Your task to perform on an android device: turn on location history Image 0: 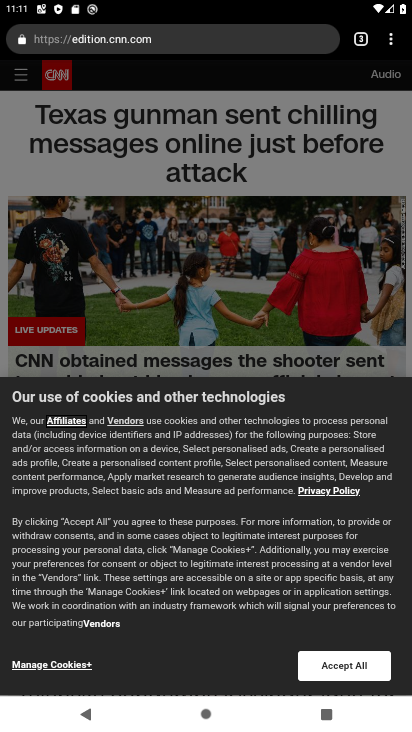
Step 0: press home button
Your task to perform on an android device: turn on location history Image 1: 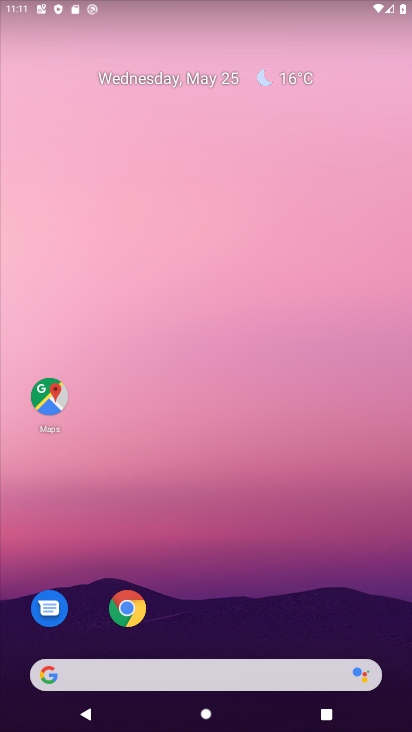
Step 1: drag from (194, 586) to (256, 126)
Your task to perform on an android device: turn on location history Image 2: 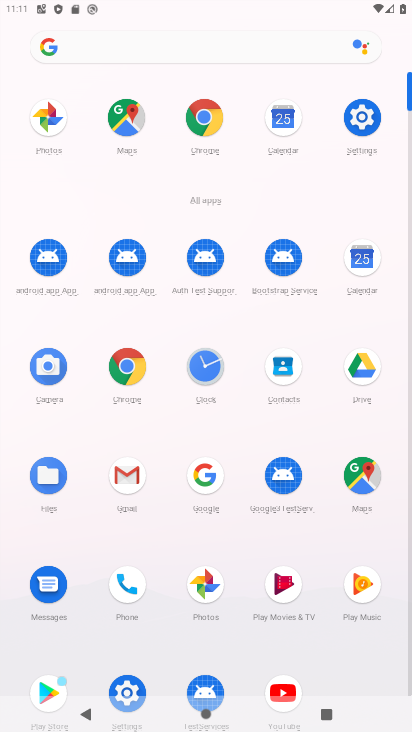
Step 2: click (360, 117)
Your task to perform on an android device: turn on location history Image 3: 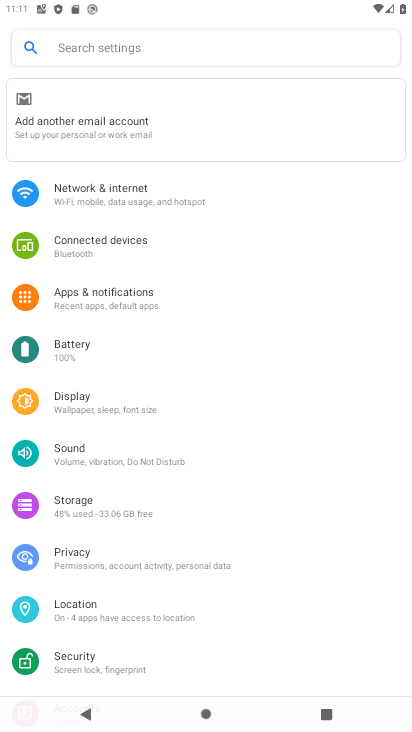
Step 3: click (70, 602)
Your task to perform on an android device: turn on location history Image 4: 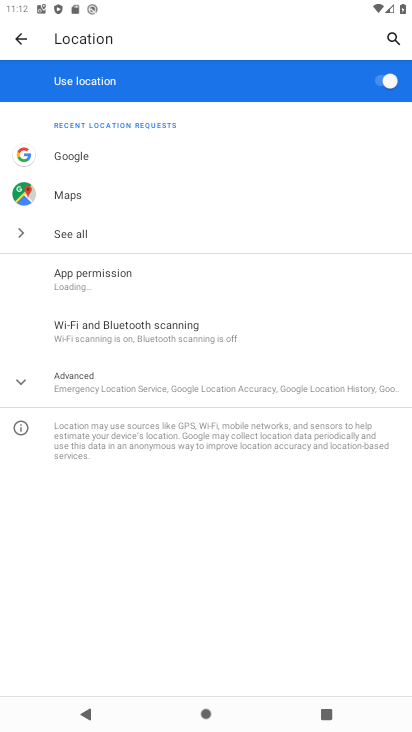
Step 4: click (132, 387)
Your task to perform on an android device: turn on location history Image 5: 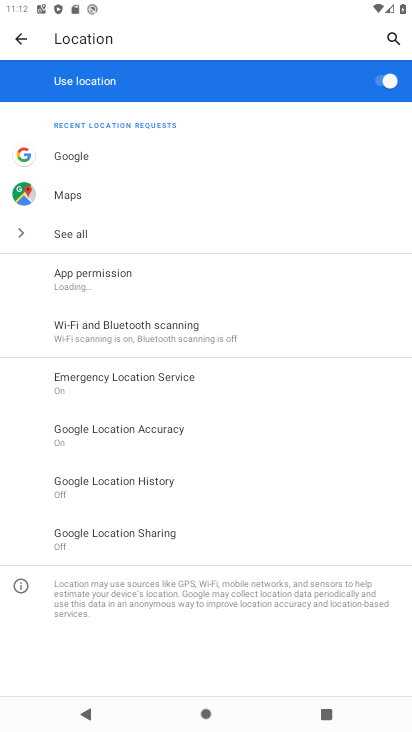
Step 5: click (109, 492)
Your task to perform on an android device: turn on location history Image 6: 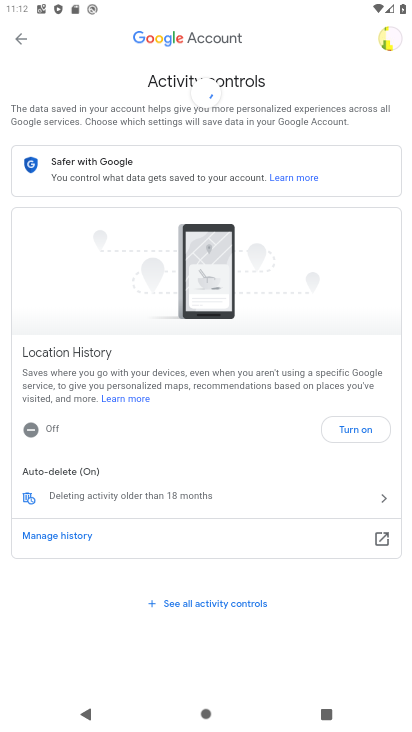
Step 6: click (355, 437)
Your task to perform on an android device: turn on location history Image 7: 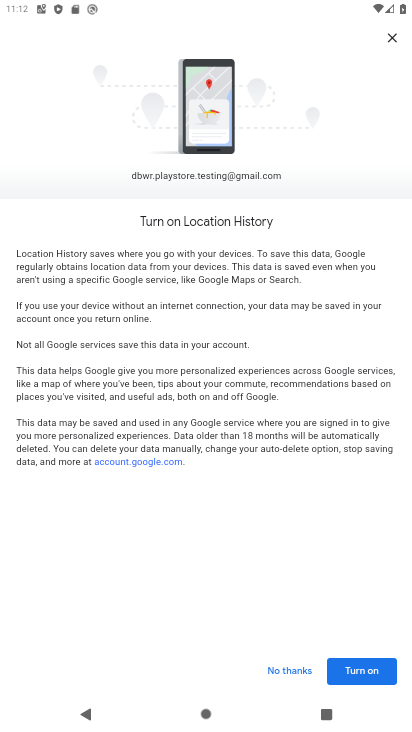
Step 7: click (370, 681)
Your task to perform on an android device: turn on location history Image 8: 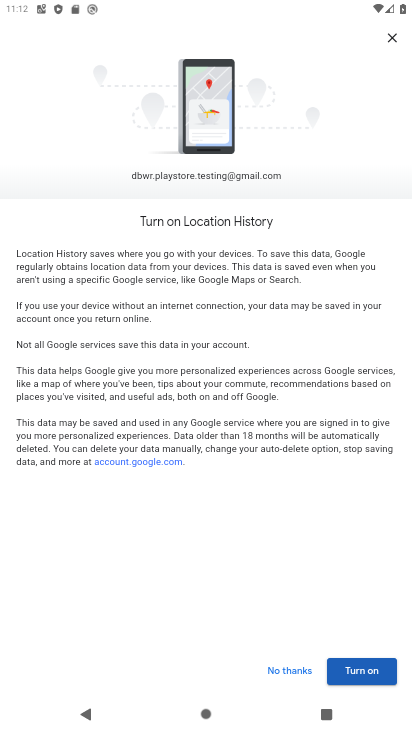
Step 8: click (362, 674)
Your task to perform on an android device: turn on location history Image 9: 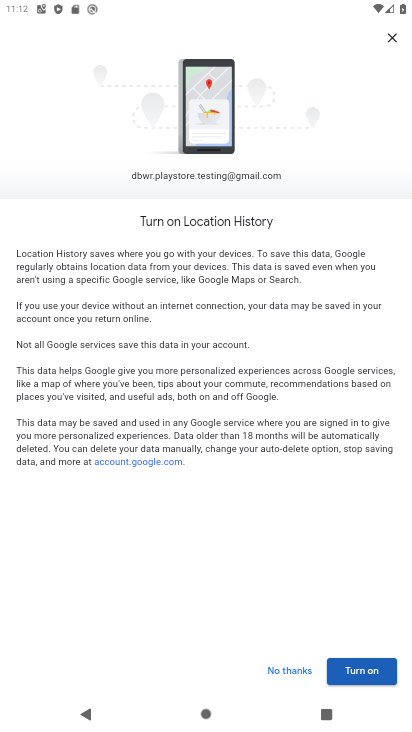
Step 9: drag from (199, 533) to (288, 196)
Your task to perform on an android device: turn on location history Image 10: 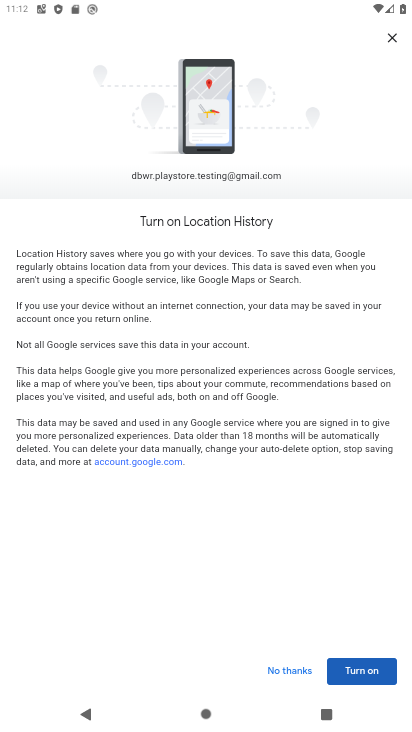
Step 10: click (355, 672)
Your task to perform on an android device: turn on location history Image 11: 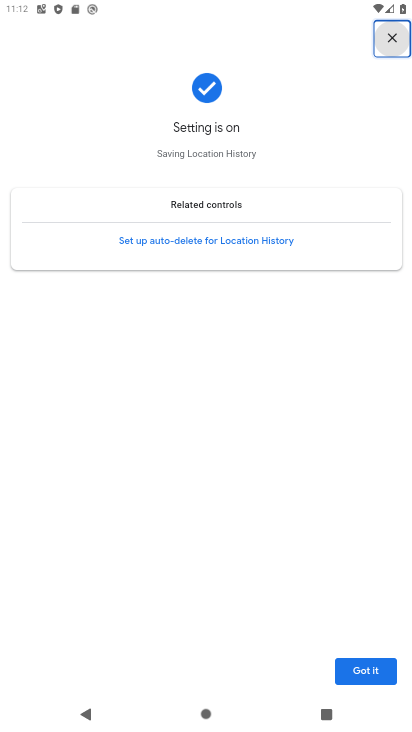
Step 11: task complete